Your task to perform on an android device: search for starred emails in the gmail app Image 0: 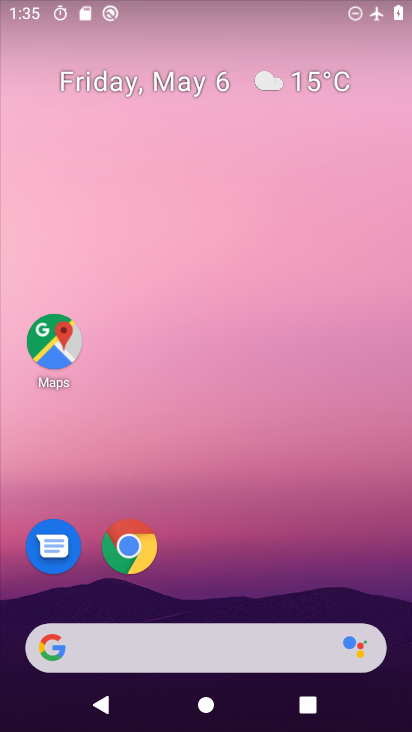
Step 0: drag from (282, 581) to (278, 97)
Your task to perform on an android device: search for starred emails in the gmail app Image 1: 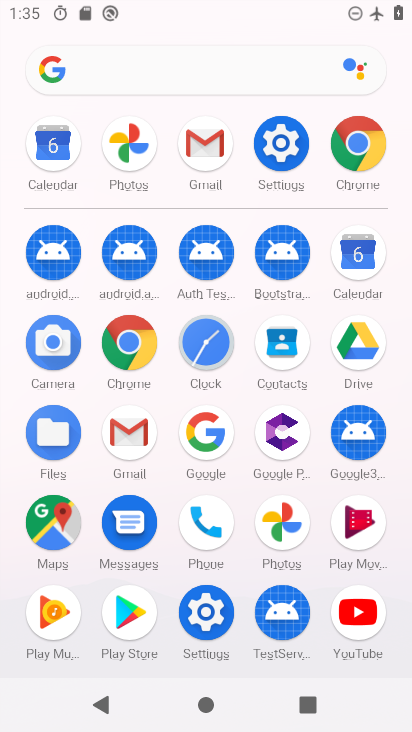
Step 1: click (131, 432)
Your task to perform on an android device: search for starred emails in the gmail app Image 2: 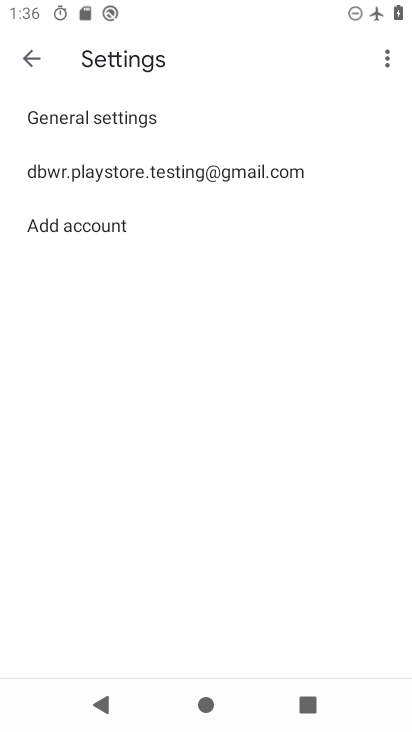
Step 2: press home button
Your task to perform on an android device: search for starred emails in the gmail app Image 3: 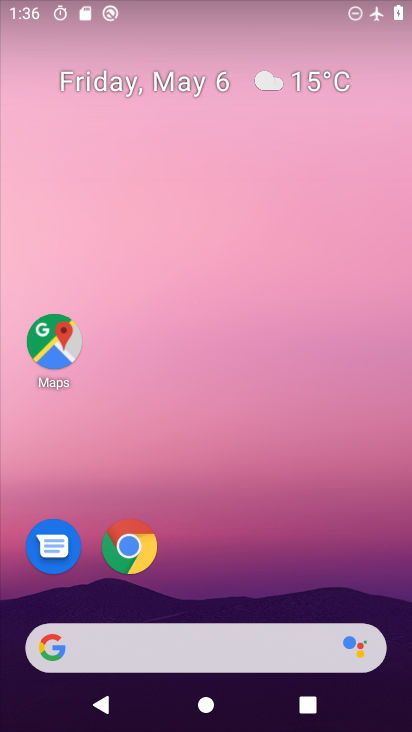
Step 3: drag from (259, 393) to (257, 148)
Your task to perform on an android device: search for starred emails in the gmail app Image 4: 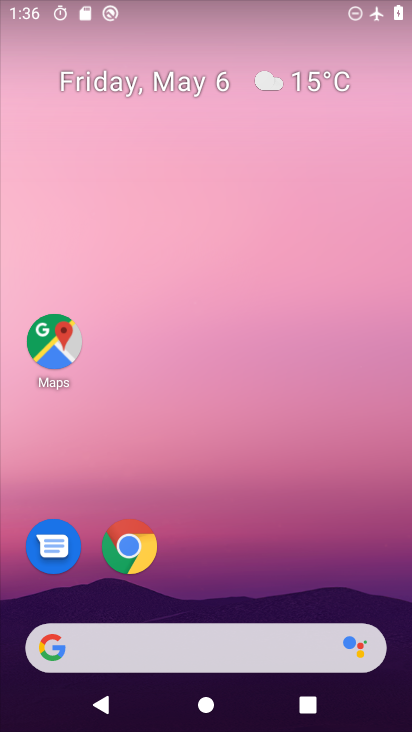
Step 4: drag from (255, 580) to (247, 129)
Your task to perform on an android device: search for starred emails in the gmail app Image 5: 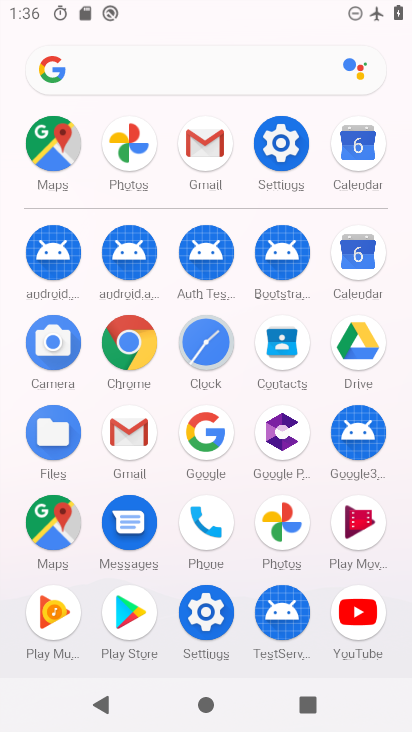
Step 5: click (200, 149)
Your task to perform on an android device: search for starred emails in the gmail app Image 6: 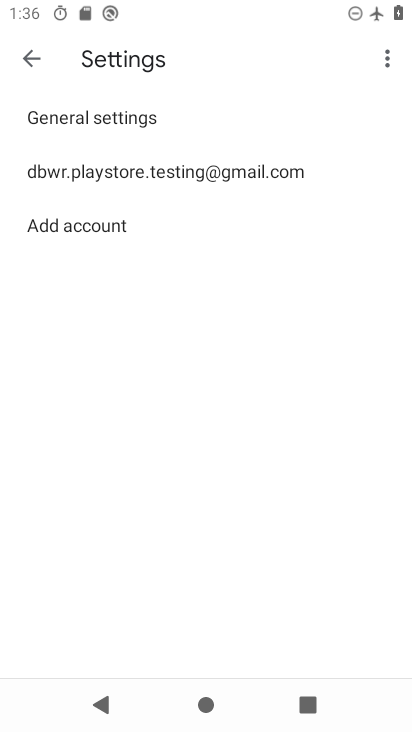
Step 6: click (29, 54)
Your task to perform on an android device: search for starred emails in the gmail app Image 7: 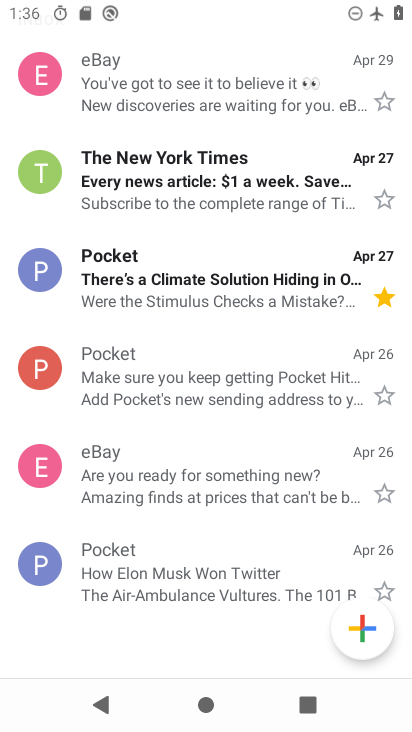
Step 7: drag from (240, 268) to (224, 588)
Your task to perform on an android device: search for starred emails in the gmail app Image 8: 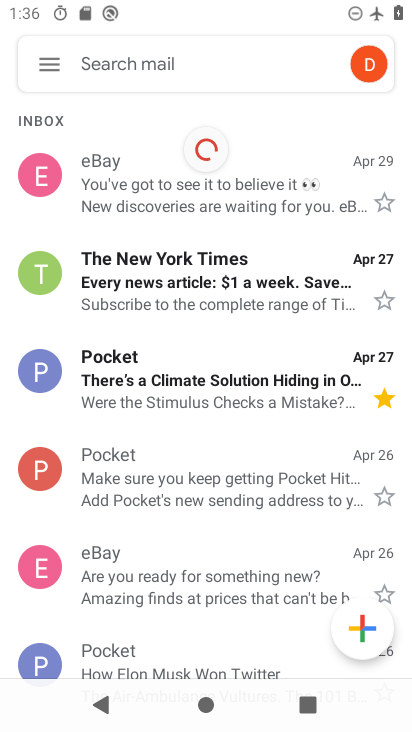
Step 8: click (46, 62)
Your task to perform on an android device: search for starred emails in the gmail app Image 9: 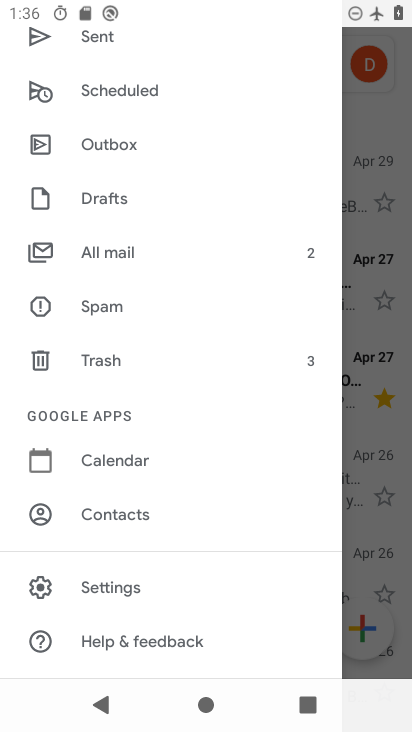
Step 9: drag from (201, 162) to (173, 556)
Your task to perform on an android device: search for starred emails in the gmail app Image 10: 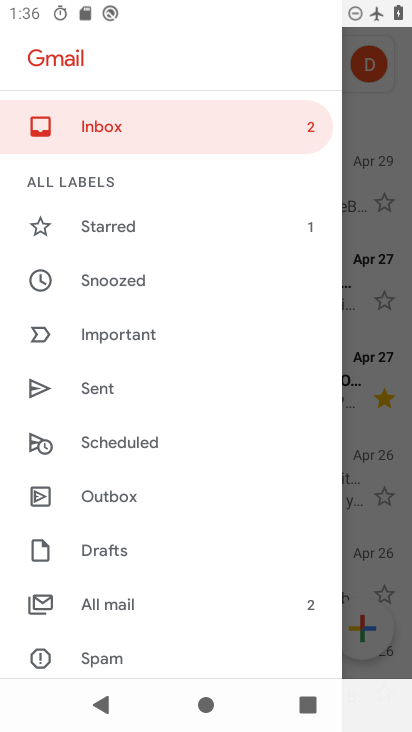
Step 10: click (113, 228)
Your task to perform on an android device: search for starred emails in the gmail app Image 11: 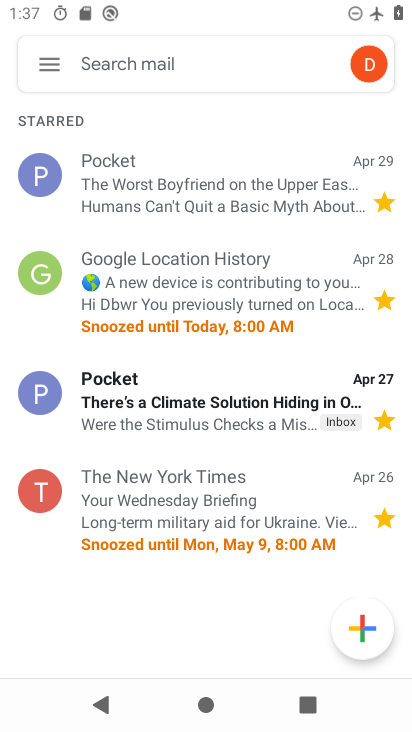
Step 11: task complete